Your task to perform on an android device: snooze an email in the gmail app Image 0: 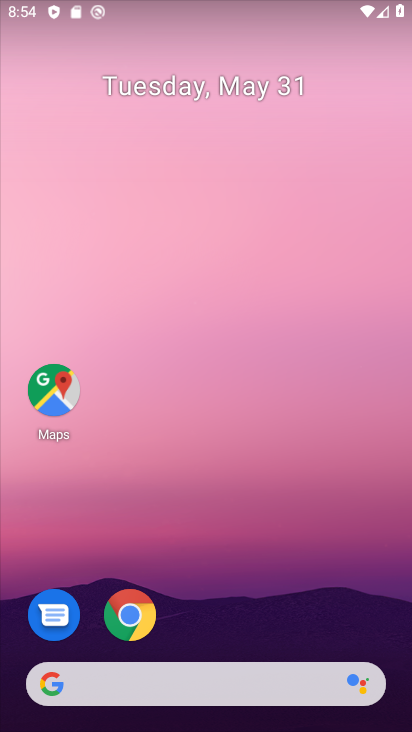
Step 0: drag from (316, 588) to (228, 62)
Your task to perform on an android device: snooze an email in the gmail app Image 1: 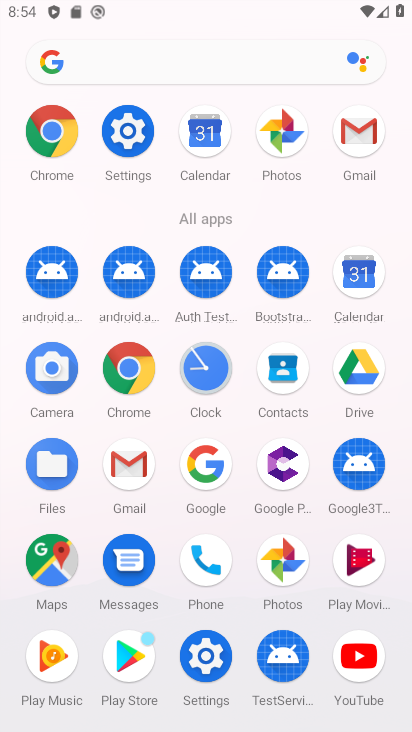
Step 1: click (356, 140)
Your task to perform on an android device: snooze an email in the gmail app Image 2: 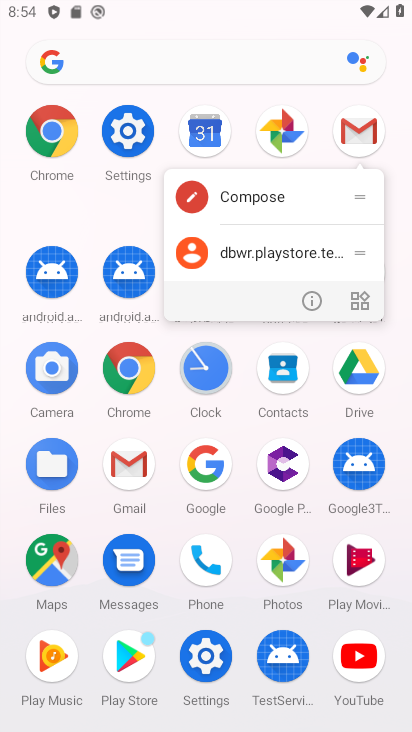
Step 2: click (343, 132)
Your task to perform on an android device: snooze an email in the gmail app Image 3: 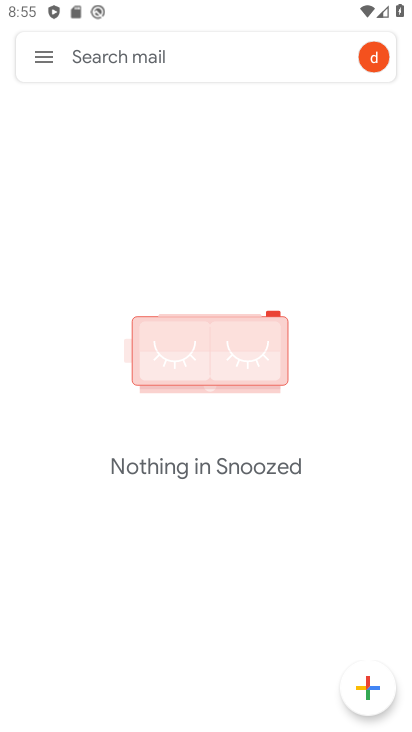
Step 3: task complete